Your task to perform on an android device: Open maps Image 0: 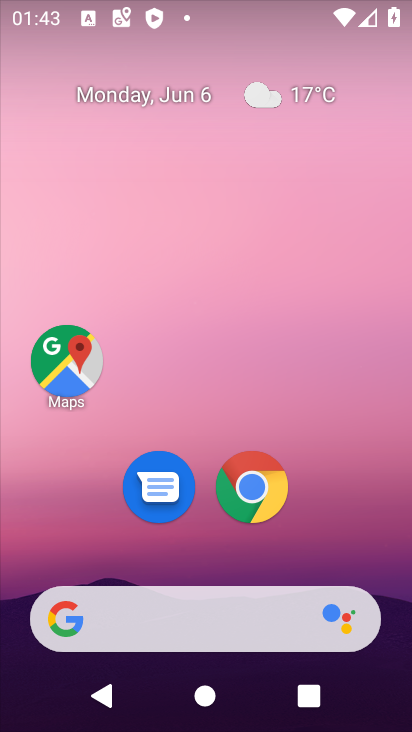
Step 0: click (72, 367)
Your task to perform on an android device: Open maps Image 1: 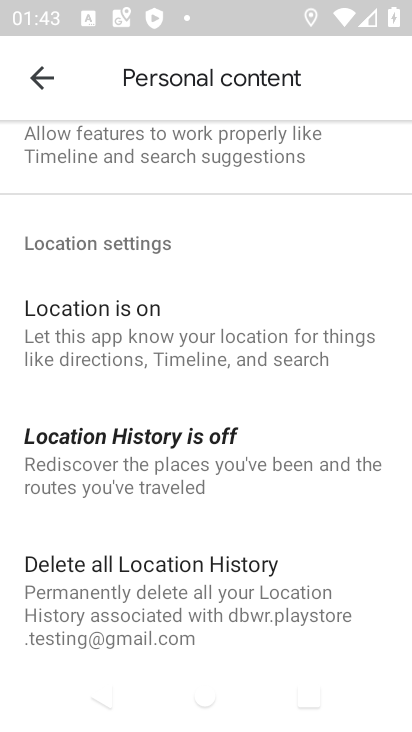
Step 1: task complete